Your task to perform on an android device: open the mobile data screen to see how much data has been used Image 0: 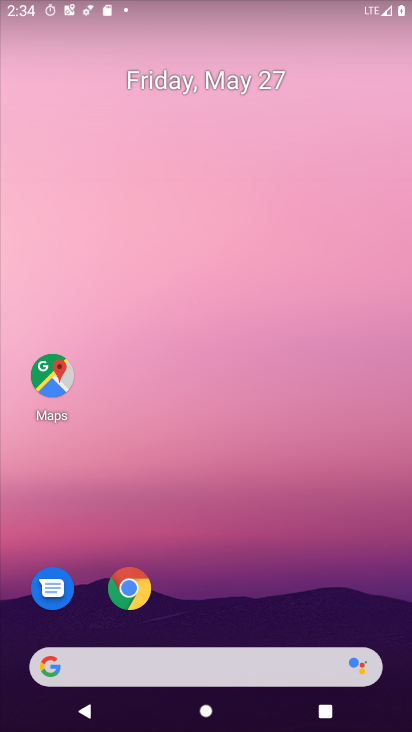
Step 0: drag from (205, 111) to (203, 37)
Your task to perform on an android device: open the mobile data screen to see how much data has been used Image 1: 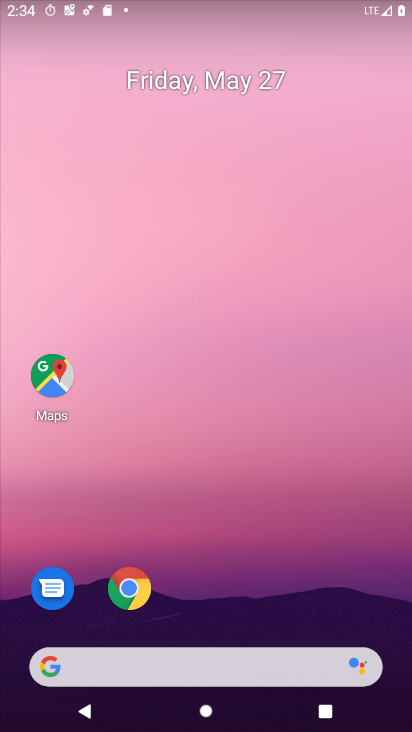
Step 1: drag from (192, 173) to (185, 0)
Your task to perform on an android device: open the mobile data screen to see how much data has been used Image 2: 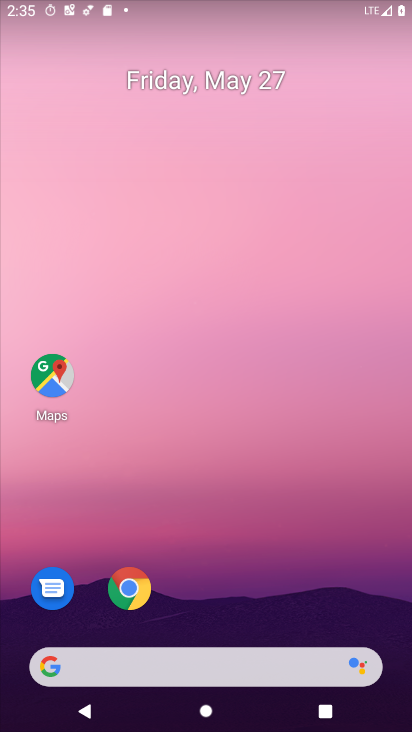
Step 2: click (375, 1)
Your task to perform on an android device: open the mobile data screen to see how much data has been used Image 3: 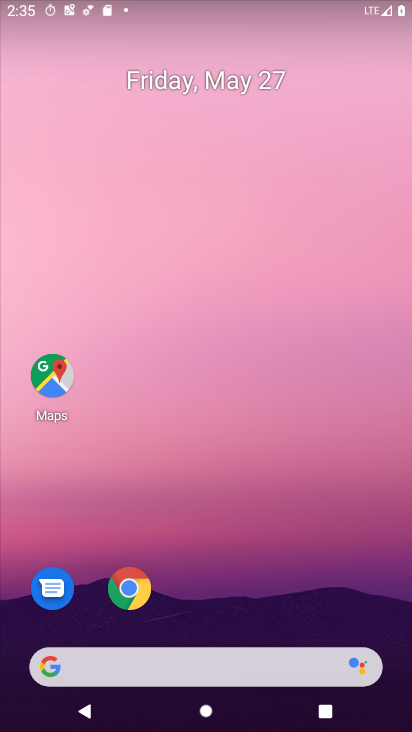
Step 3: drag from (207, 454) to (201, 13)
Your task to perform on an android device: open the mobile data screen to see how much data has been used Image 4: 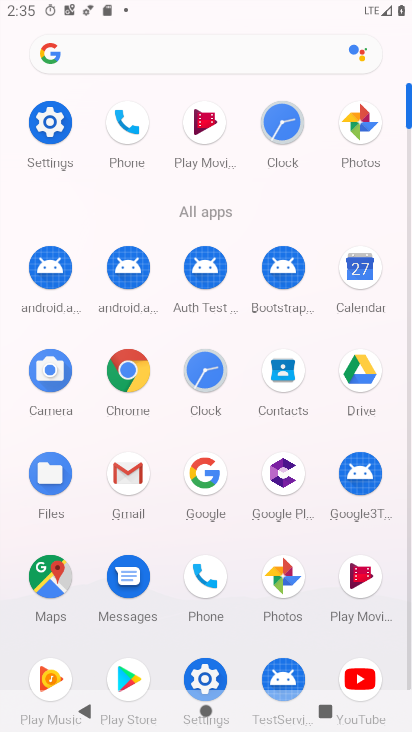
Step 4: click (56, 124)
Your task to perform on an android device: open the mobile data screen to see how much data has been used Image 5: 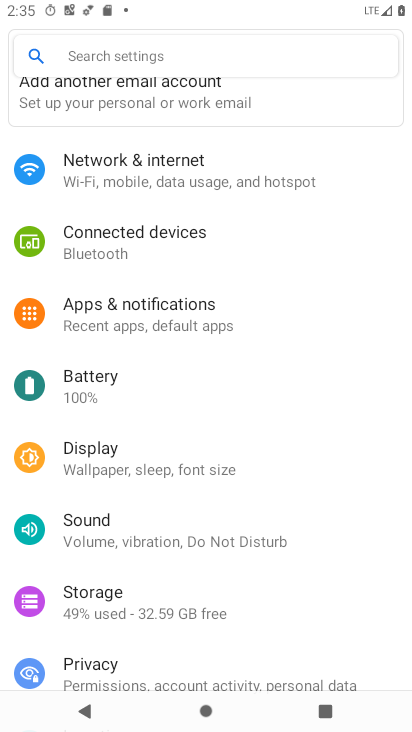
Step 5: click (112, 175)
Your task to perform on an android device: open the mobile data screen to see how much data has been used Image 6: 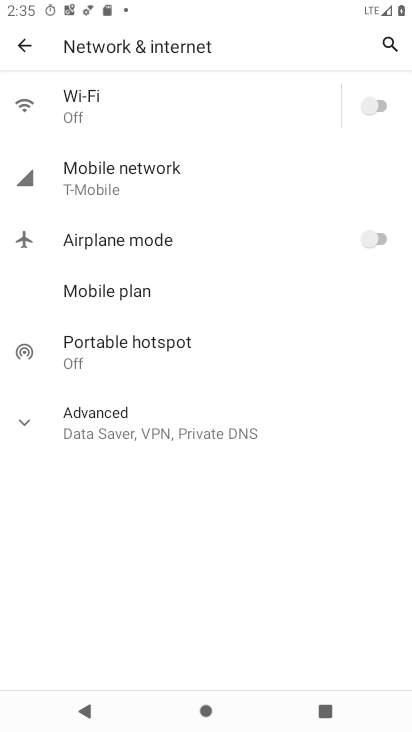
Step 6: click (103, 174)
Your task to perform on an android device: open the mobile data screen to see how much data has been used Image 7: 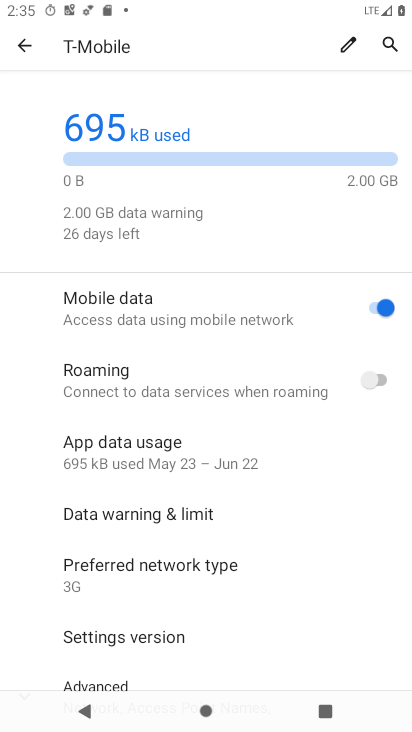
Step 7: click (111, 454)
Your task to perform on an android device: open the mobile data screen to see how much data has been used Image 8: 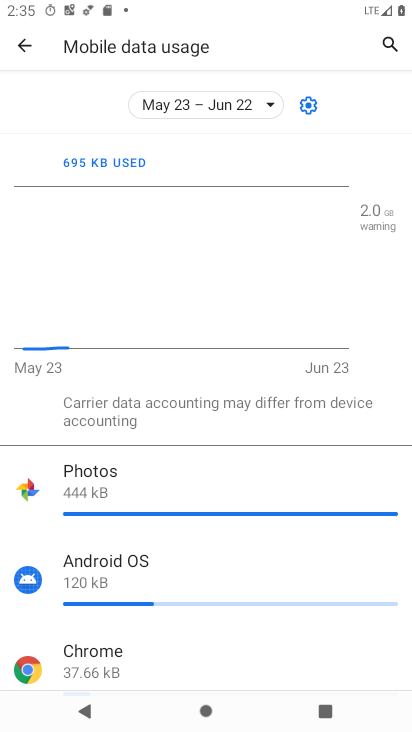
Step 8: task complete